Your task to perform on an android device: set the stopwatch Image 0: 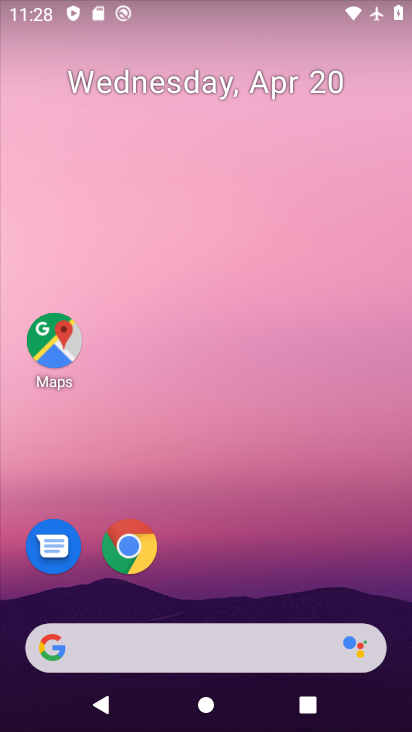
Step 0: press home button
Your task to perform on an android device: set the stopwatch Image 1: 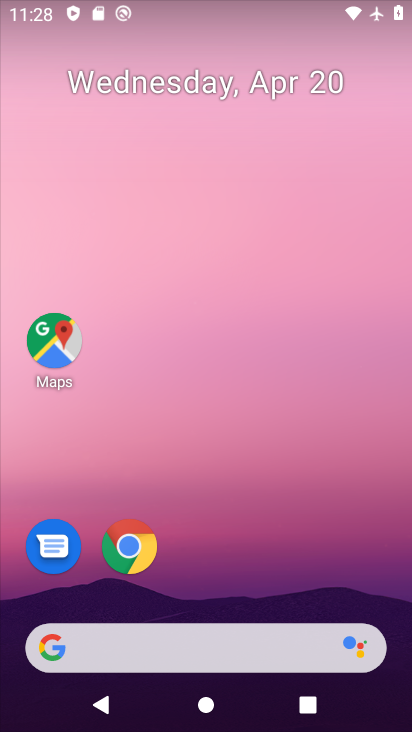
Step 1: drag from (199, 642) to (374, 37)
Your task to perform on an android device: set the stopwatch Image 2: 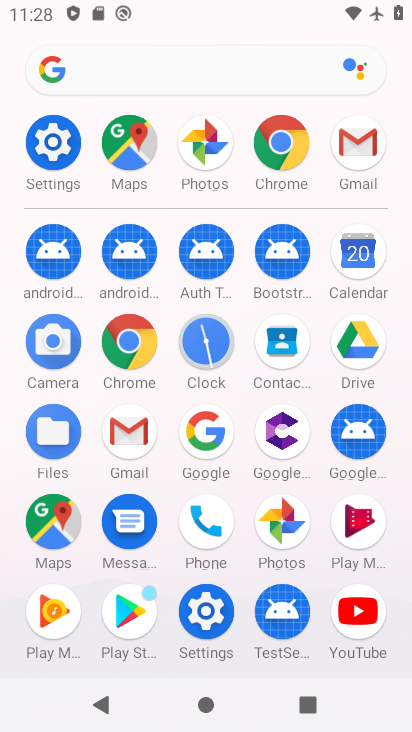
Step 2: click (216, 359)
Your task to perform on an android device: set the stopwatch Image 3: 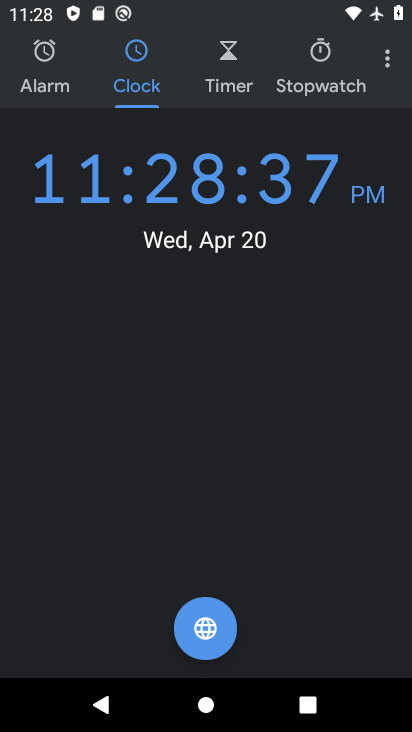
Step 3: click (328, 65)
Your task to perform on an android device: set the stopwatch Image 4: 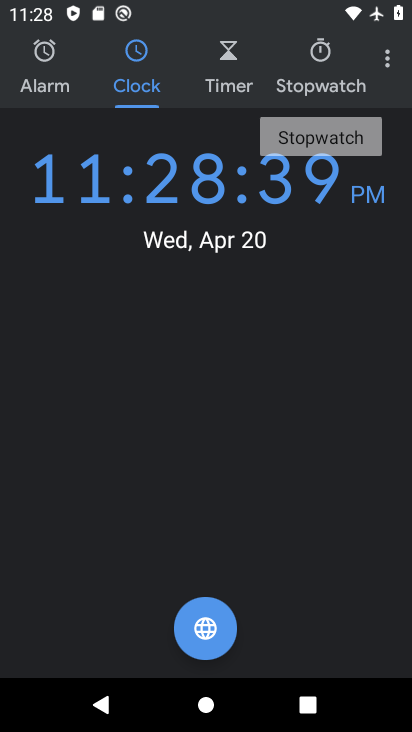
Step 4: click (318, 84)
Your task to perform on an android device: set the stopwatch Image 5: 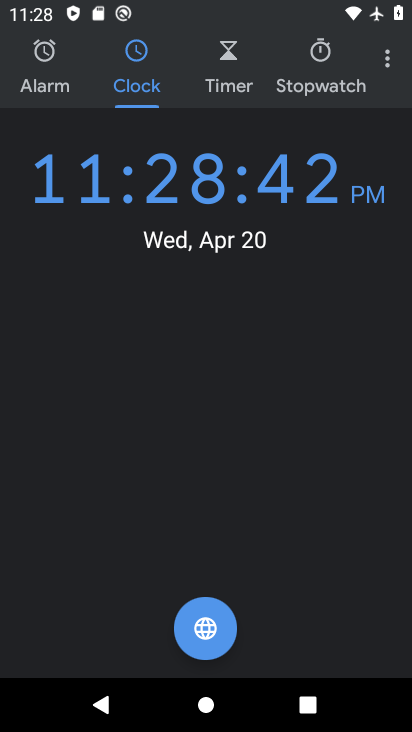
Step 5: click (320, 53)
Your task to perform on an android device: set the stopwatch Image 6: 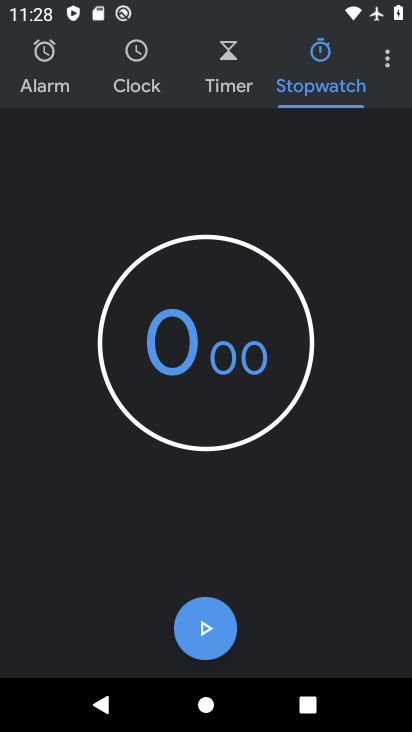
Step 6: click (215, 361)
Your task to perform on an android device: set the stopwatch Image 7: 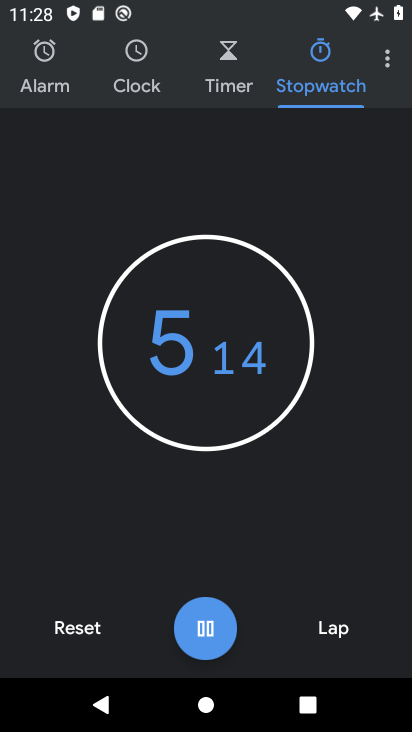
Step 7: click (204, 378)
Your task to perform on an android device: set the stopwatch Image 8: 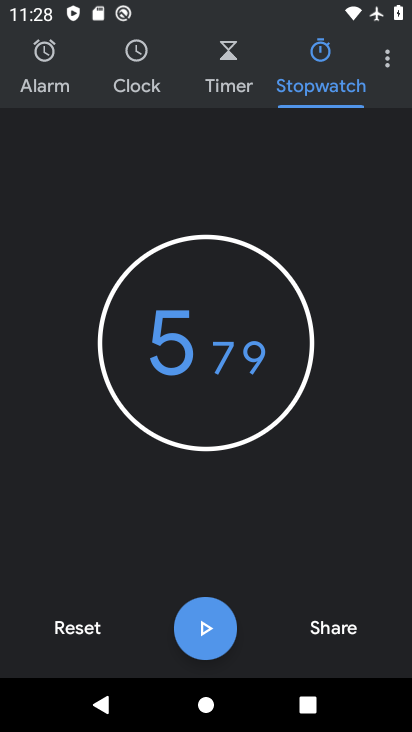
Step 8: click (212, 640)
Your task to perform on an android device: set the stopwatch Image 9: 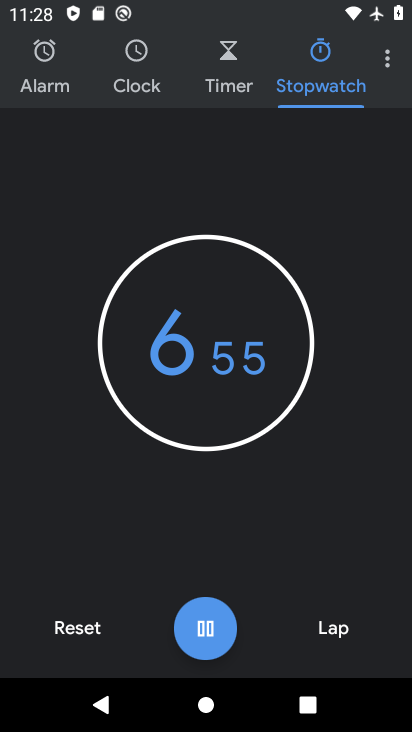
Step 9: click (212, 641)
Your task to perform on an android device: set the stopwatch Image 10: 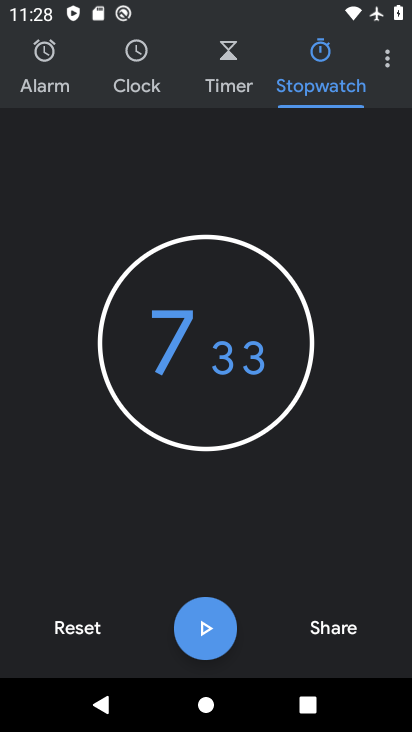
Step 10: task complete